Your task to perform on an android device: search for starred emails in the gmail app Image 0: 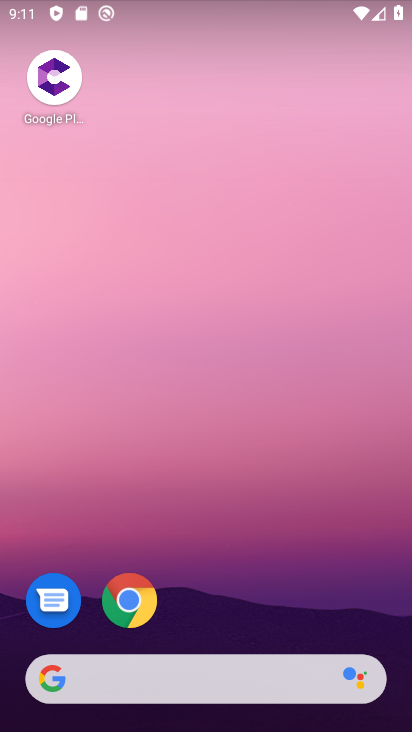
Step 0: drag from (238, 628) to (321, 153)
Your task to perform on an android device: search for starred emails in the gmail app Image 1: 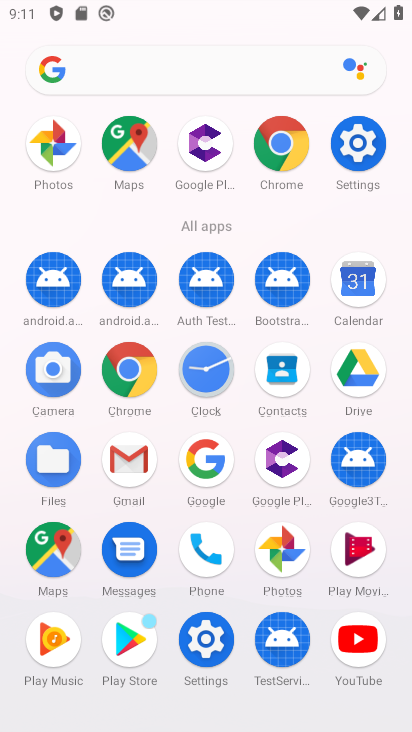
Step 1: click (128, 467)
Your task to perform on an android device: search for starred emails in the gmail app Image 2: 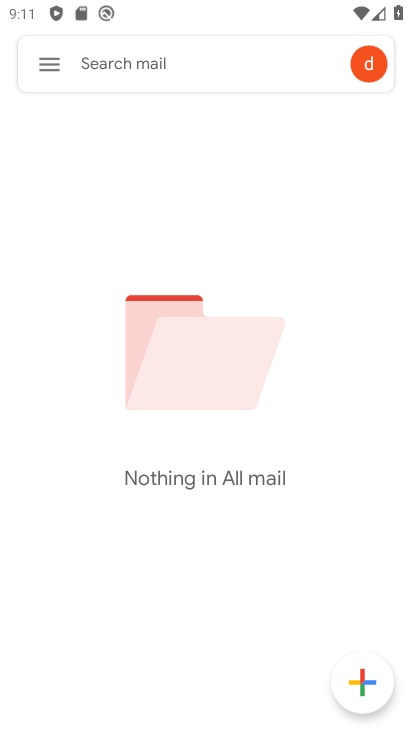
Step 2: click (43, 66)
Your task to perform on an android device: search for starred emails in the gmail app Image 3: 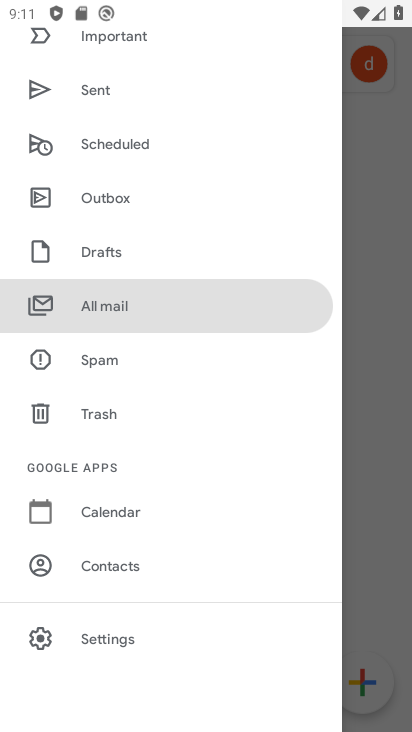
Step 3: drag from (137, 175) to (162, 635)
Your task to perform on an android device: search for starred emails in the gmail app Image 4: 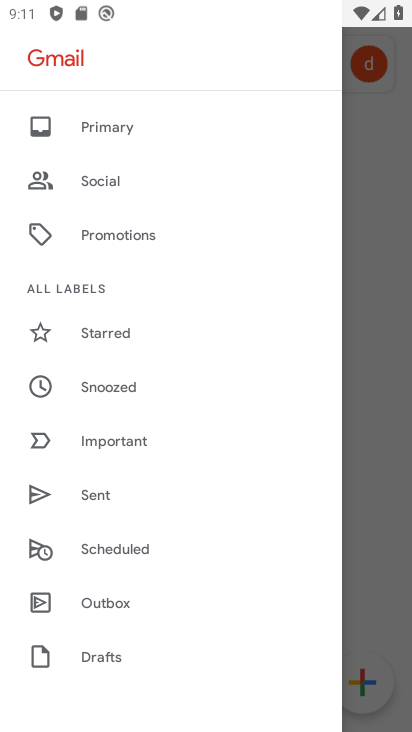
Step 4: click (102, 335)
Your task to perform on an android device: search for starred emails in the gmail app Image 5: 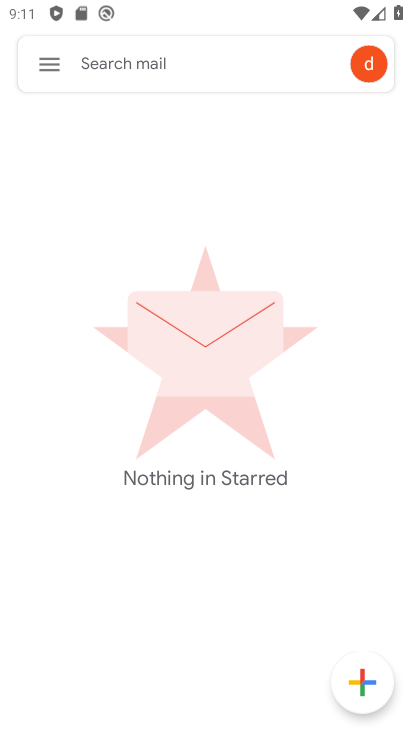
Step 5: task complete